Your task to perform on an android device: What's the latest news in space science? Image 0: 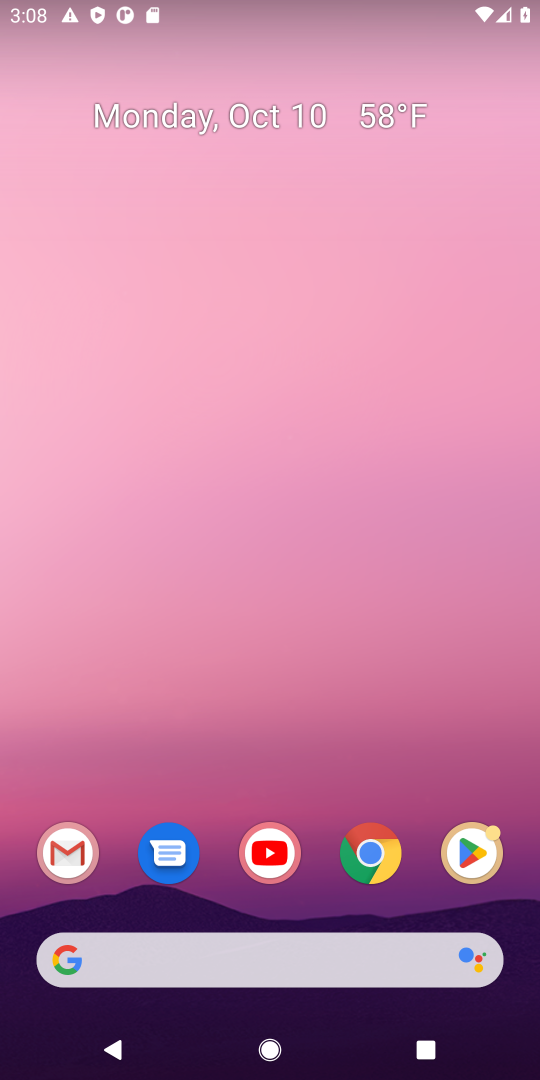
Step 0: click (241, 970)
Your task to perform on an android device: What's the latest news in space science? Image 1: 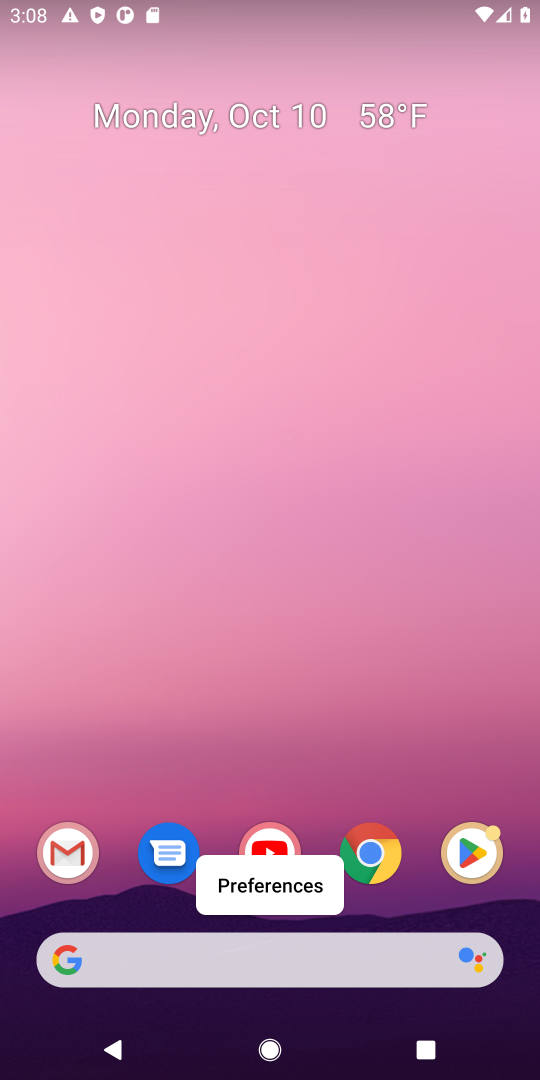
Step 1: click (256, 957)
Your task to perform on an android device: What's the latest news in space science? Image 2: 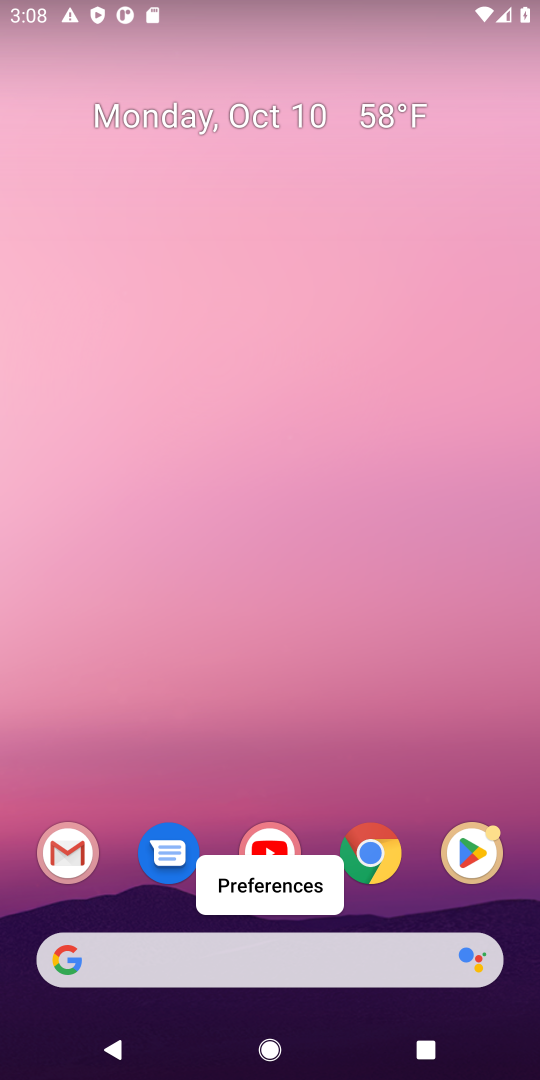
Step 2: click (168, 962)
Your task to perform on an android device: What's the latest news in space science? Image 3: 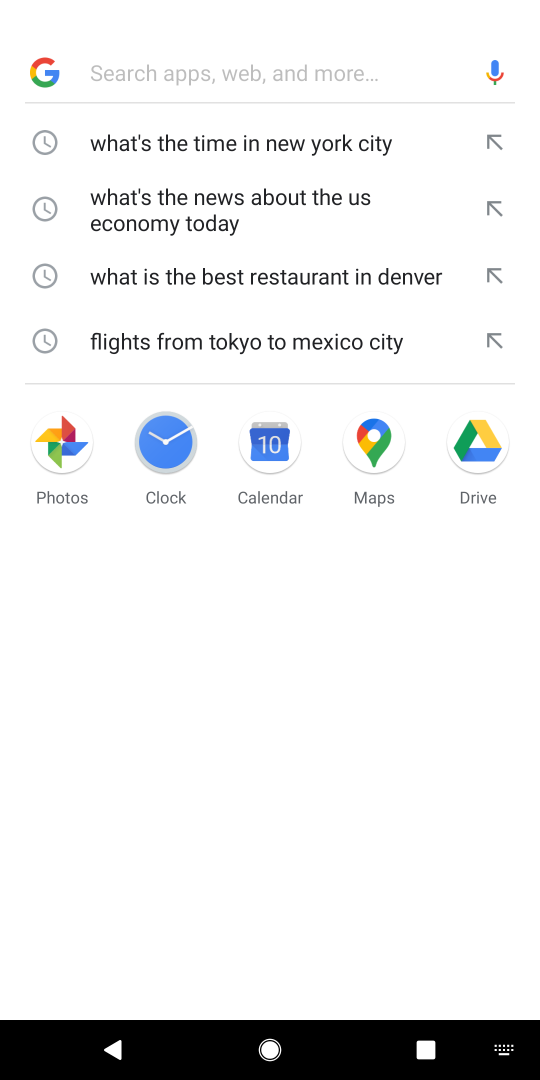
Step 3: click (152, 72)
Your task to perform on an android device: What's the latest news in space science? Image 4: 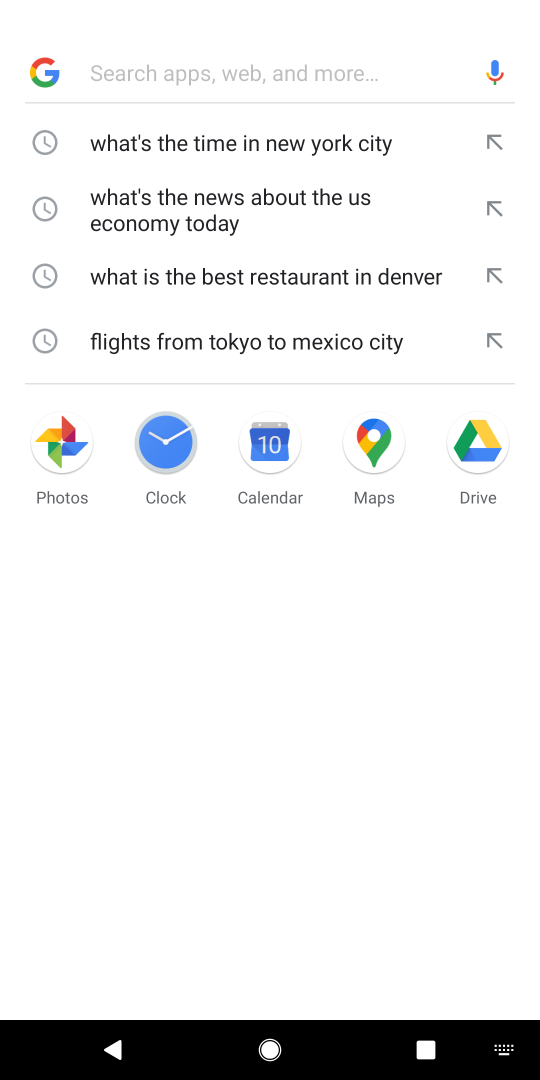
Step 4: type "What's the latest news in space science?"
Your task to perform on an android device: What's the latest news in space science? Image 5: 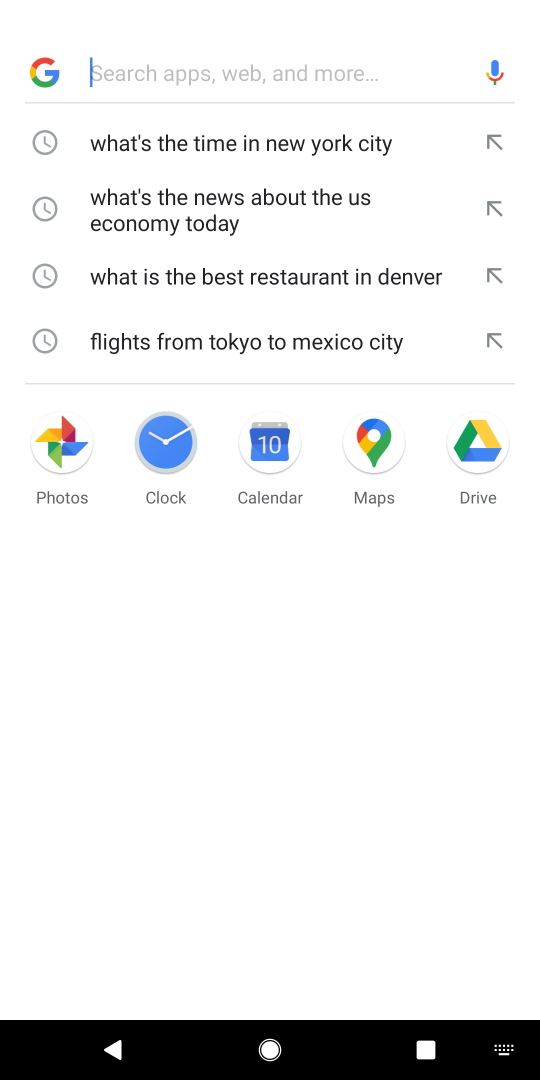
Step 5: click (200, 842)
Your task to perform on an android device: What's the latest news in space science? Image 6: 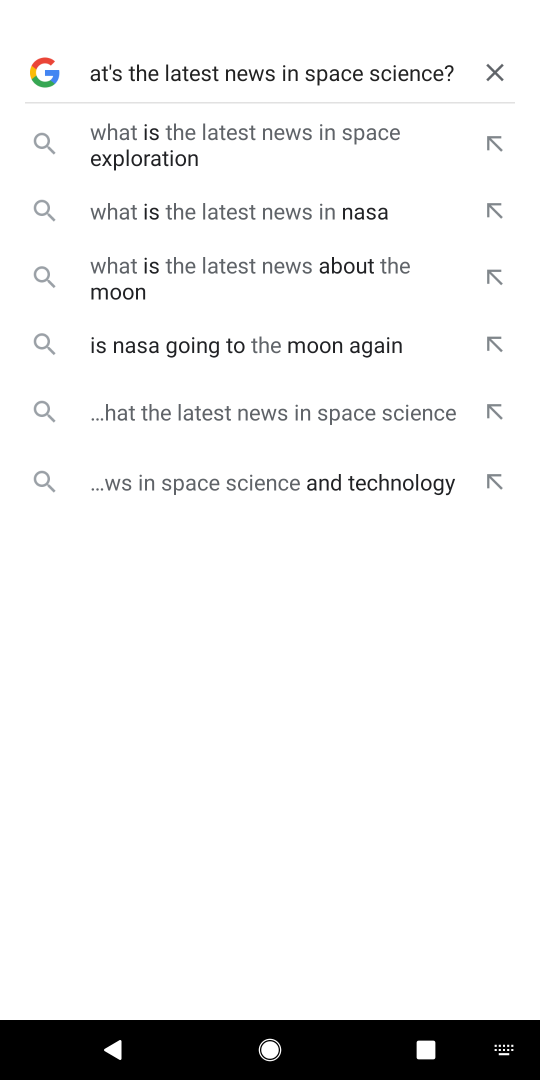
Step 6: click (235, 429)
Your task to perform on an android device: What's the latest news in space science? Image 7: 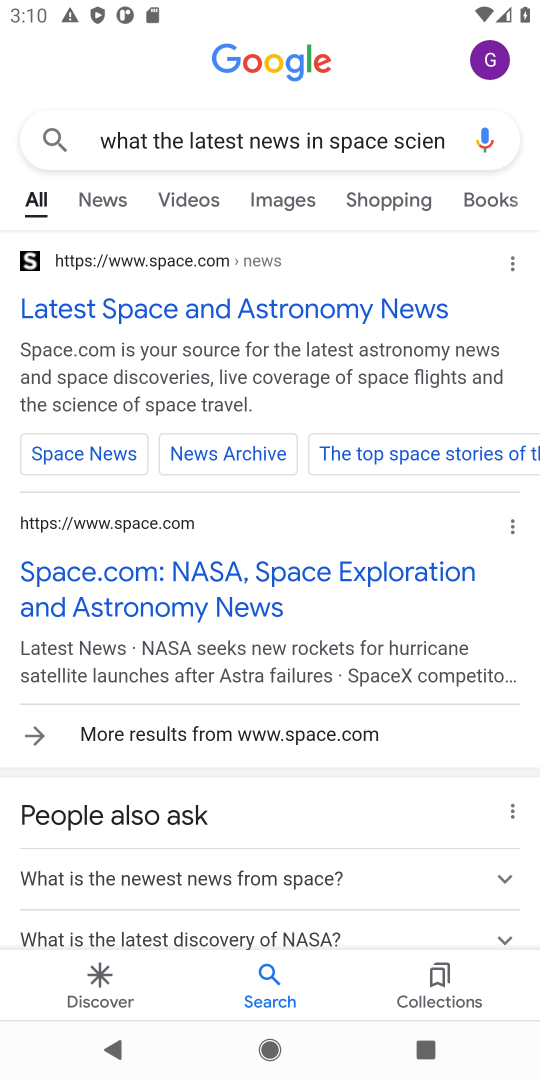
Step 7: task complete